Your task to perform on an android device: turn off picture-in-picture Image 0: 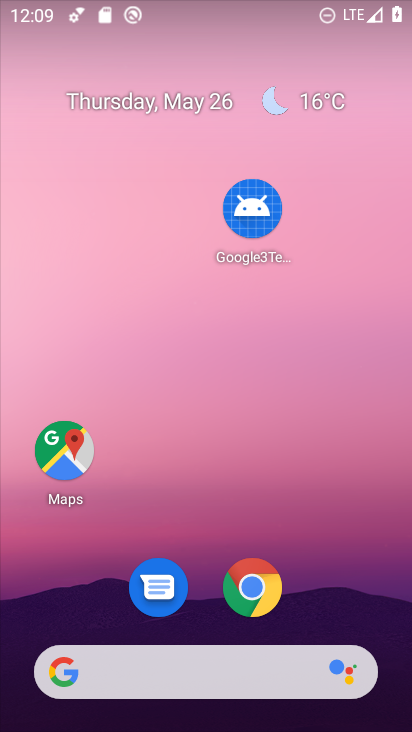
Step 0: click (262, 589)
Your task to perform on an android device: turn off picture-in-picture Image 1: 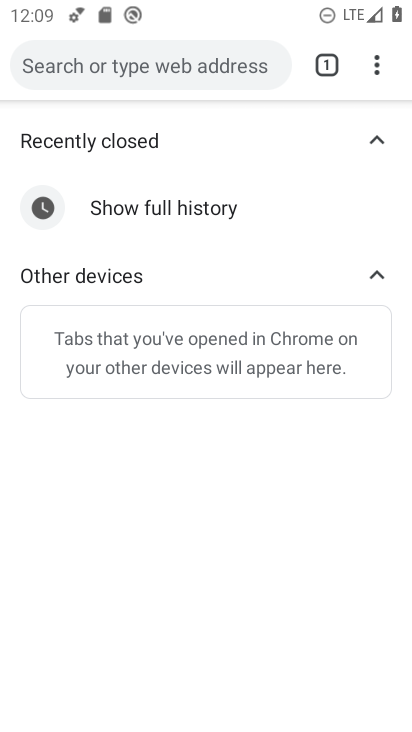
Step 1: click (375, 79)
Your task to perform on an android device: turn off picture-in-picture Image 2: 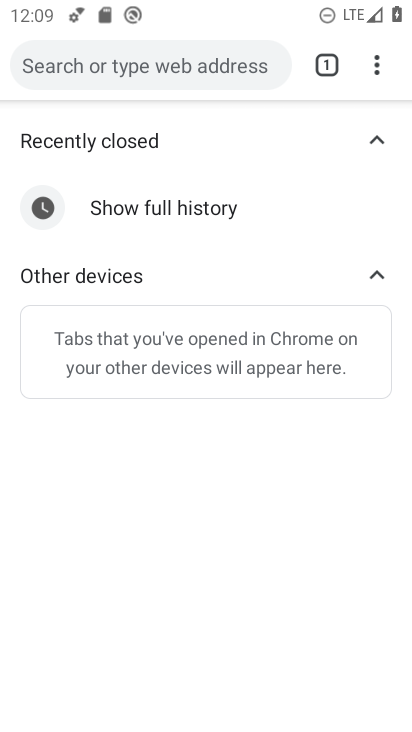
Step 2: press home button
Your task to perform on an android device: turn off picture-in-picture Image 3: 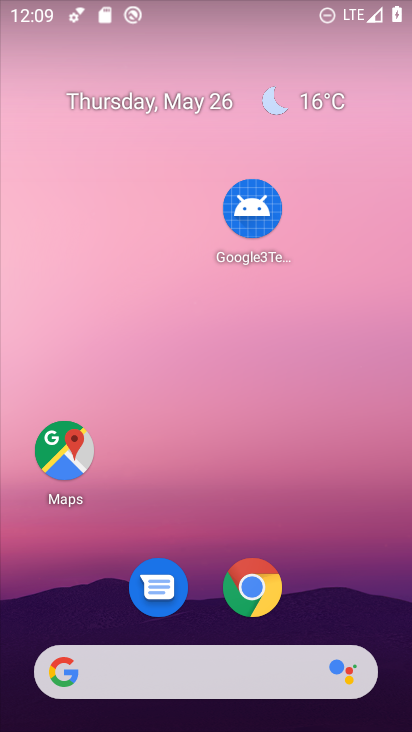
Step 3: click (249, 598)
Your task to perform on an android device: turn off picture-in-picture Image 4: 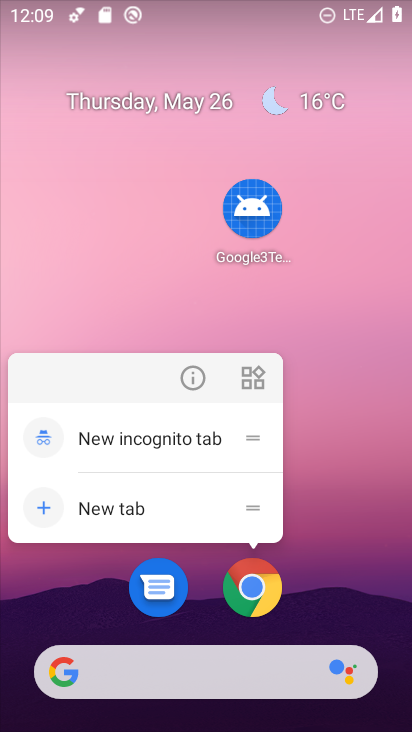
Step 4: click (194, 376)
Your task to perform on an android device: turn off picture-in-picture Image 5: 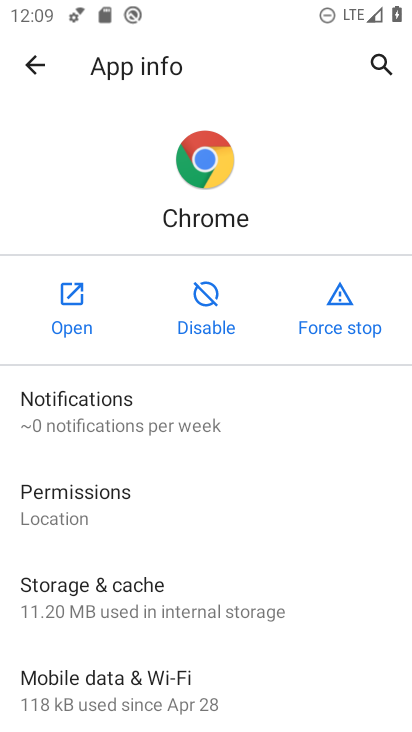
Step 5: drag from (276, 670) to (229, 133)
Your task to perform on an android device: turn off picture-in-picture Image 6: 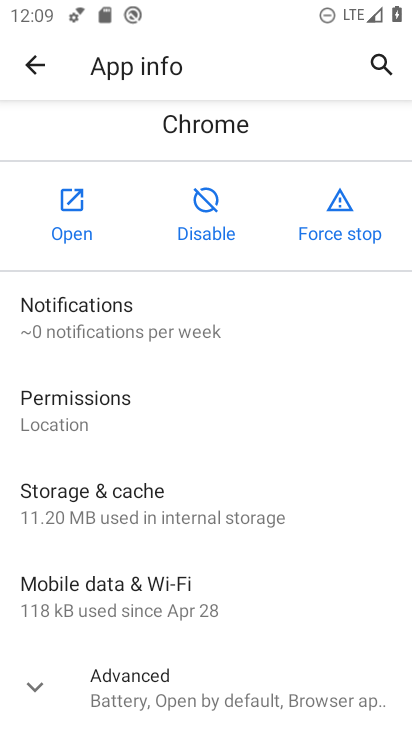
Step 6: click (206, 691)
Your task to perform on an android device: turn off picture-in-picture Image 7: 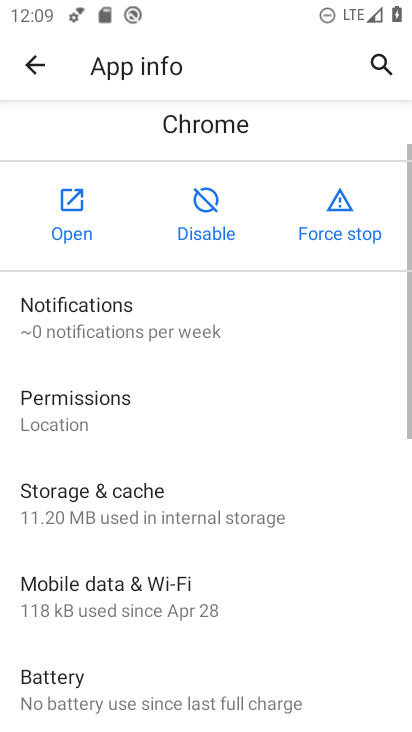
Step 7: drag from (194, 704) to (161, 159)
Your task to perform on an android device: turn off picture-in-picture Image 8: 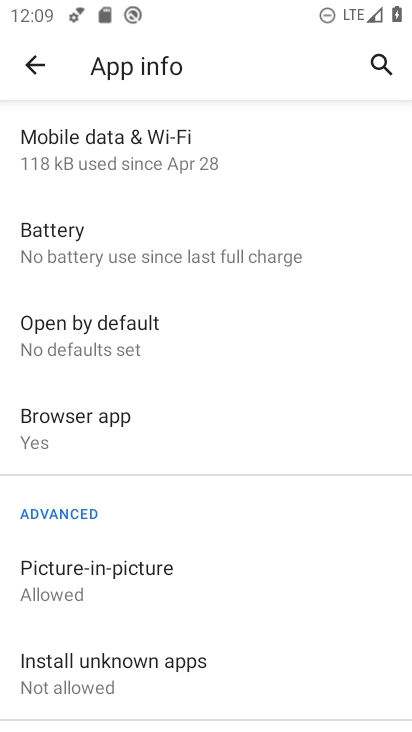
Step 8: click (153, 583)
Your task to perform on an android device: turn off picture-in-picture Image 9: 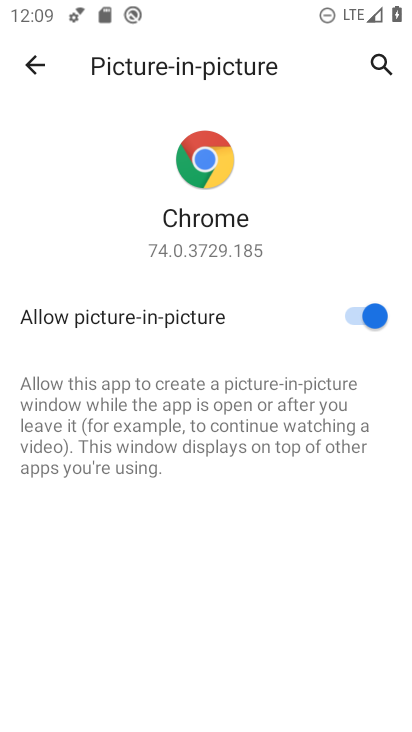
Step 9: click (356, 315)
Your task to perform on an android device: turn off picture-in-picture Image 10: 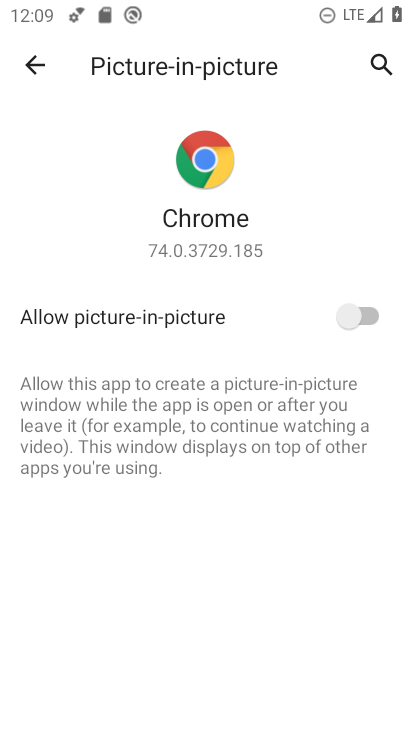
Step 10: task complete